Your task to perform on an android device: turn smart compose on in the gmail app Image 0: 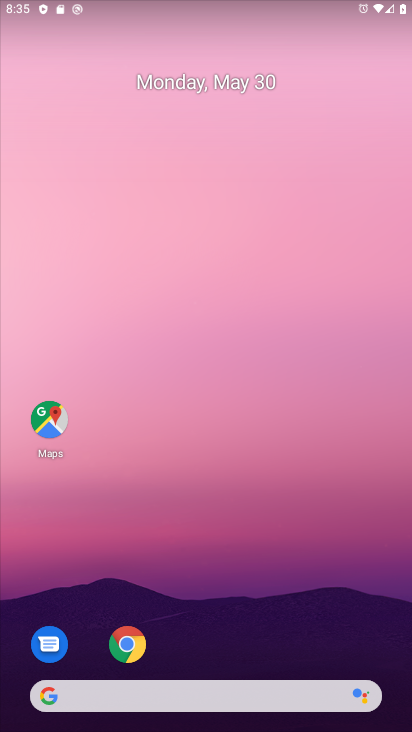
Step 0: drag from (384, 647) to (339, 55)
Your task to perform on an android device: turn smart compose on in the gmail app Image 1: 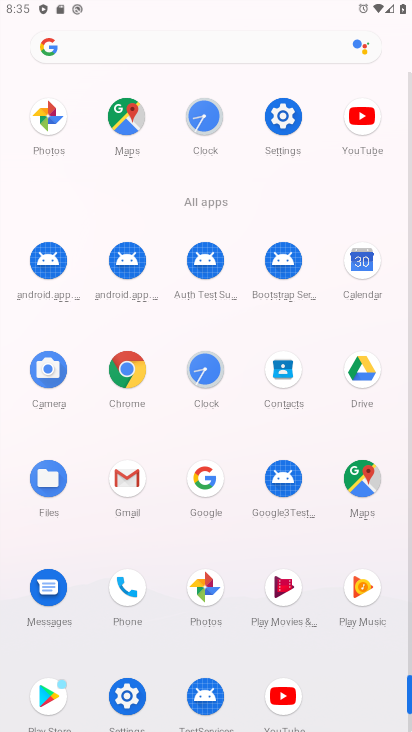
Step 1: click (126, 476)
Your task to perform on an android device: turn smart compose on in the gmail app Image 2: 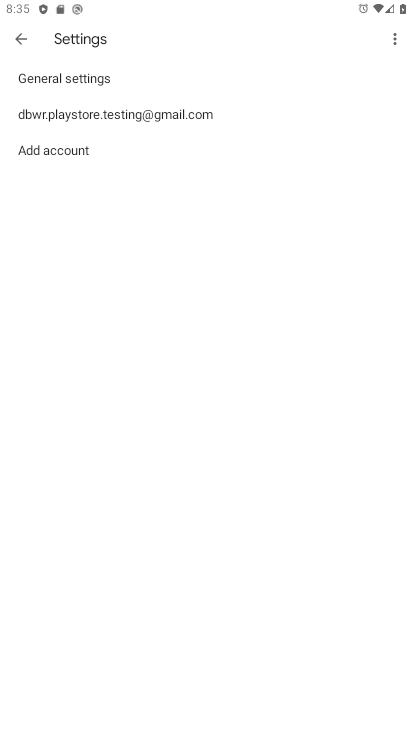
Step 2: click (106, 113)
Your task to perform on an android device: turn smart compose on in the gmail app Image 3: 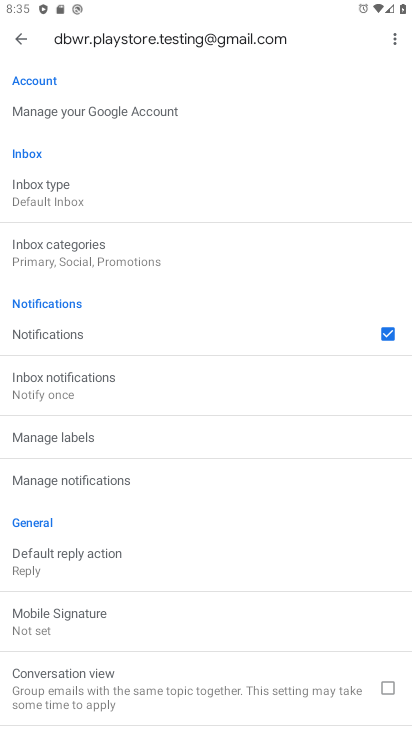
Step 3: task complete